Your task to perform on an android device: set the timer Image 0: 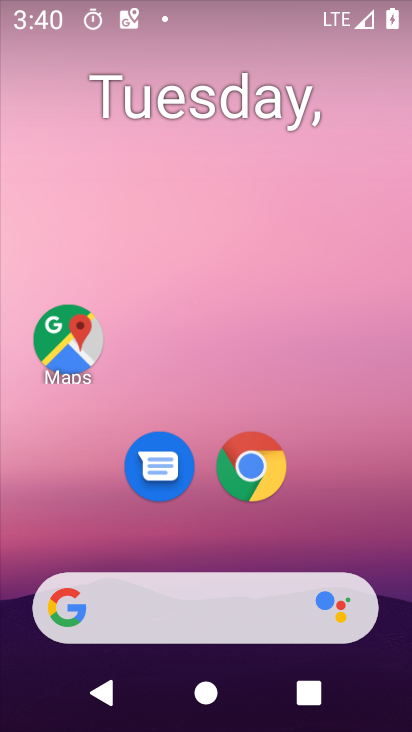
Step 0: drag from (376, 535) to (351, 178)
Your task to perform on an android device: set the timer Image 1: 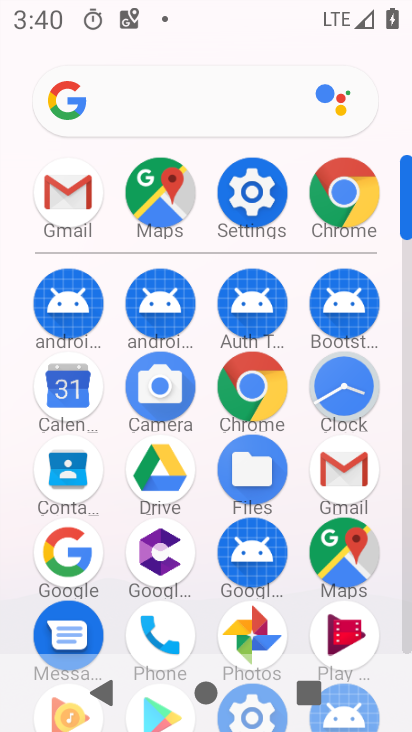
Step 1: click (351, 396)
Your task to perform on an android device: set the timer Image 2: 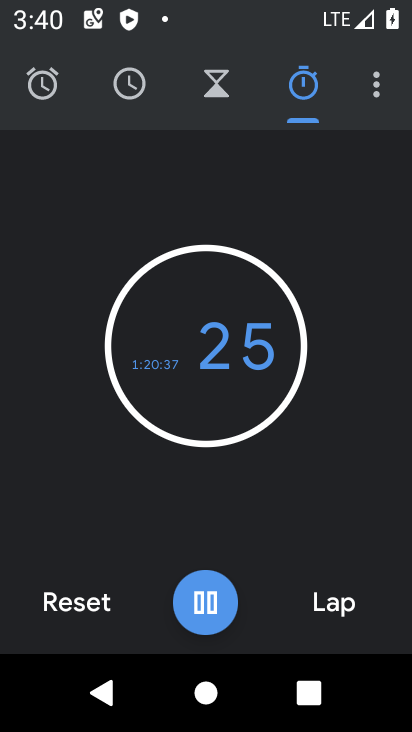
Step 2: click (207, 90)
Your task to perform on an android device: set the timer Image 3: 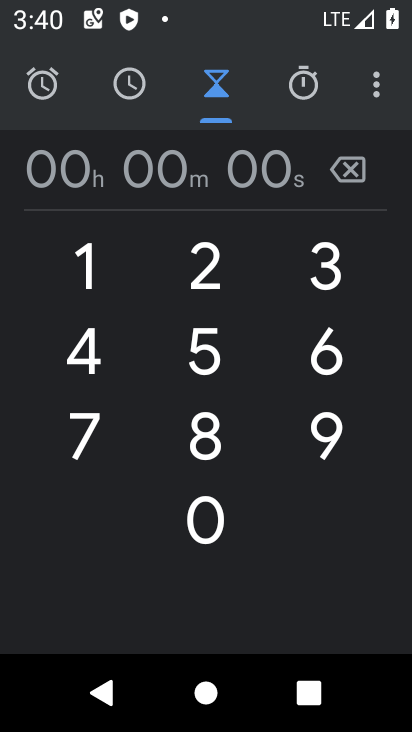
Step 3: click (199, 345)
Your task to perform on an android device: set the timer Image 4: 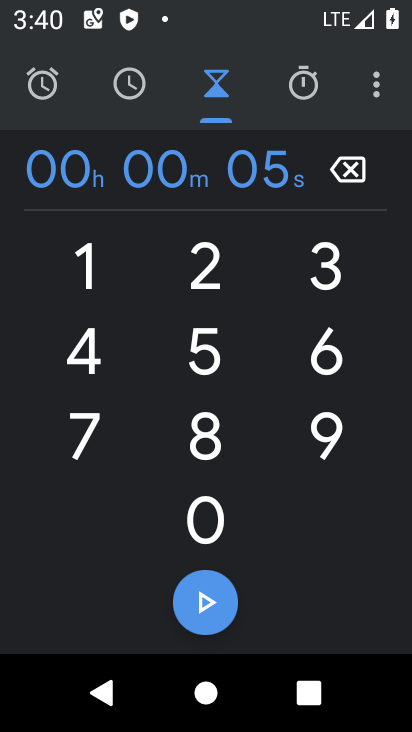
Step 4: task complete